Your task to perform on an android device: turn off notifications in google photos Image 0: 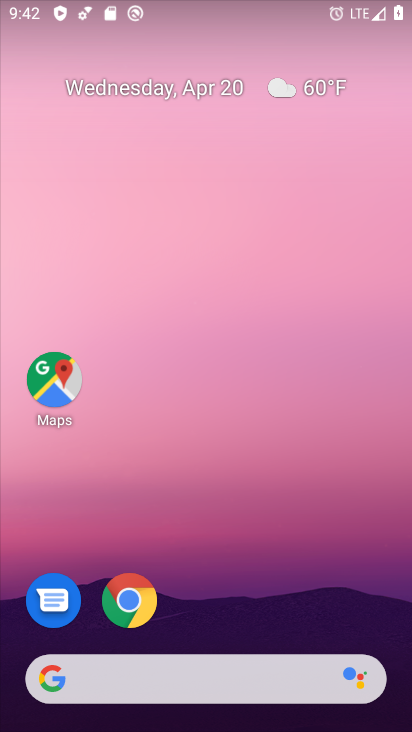
Step 0: drag from (247, 632) to (194, 76)
Your task to perform on an android device: turn off notifications in google photos Image 1: 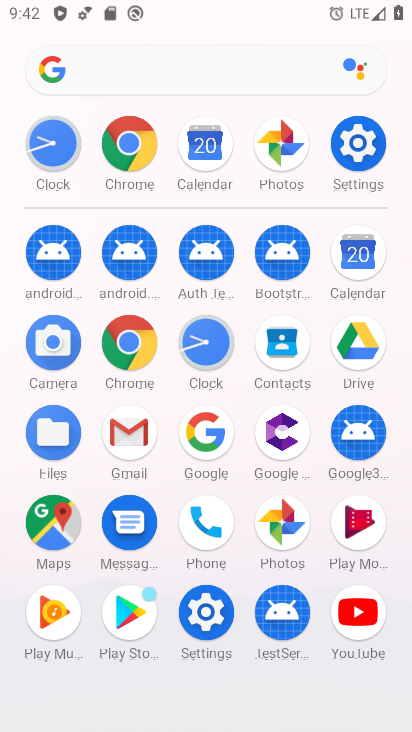
Step 1: click (281, 530)
Your task to perform on an android device: turn off notifications in google photos Image 2: 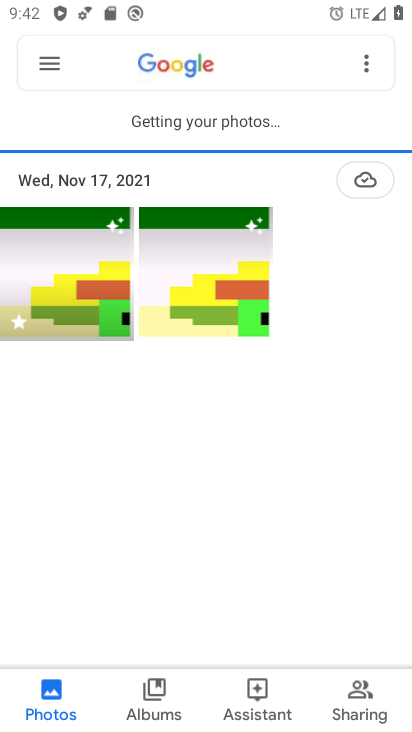
Step 2: click (56, 62)
Your task to perform on an android device: turn off notifications in google photos Image 3: 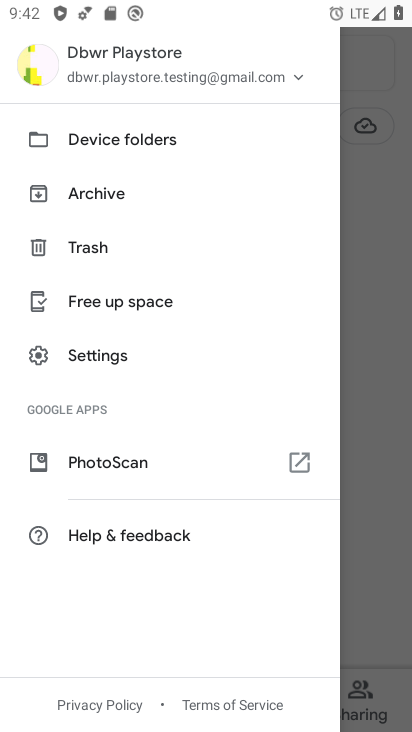
Step 3: click (47, 353)
Your task to perform on an android device: turn off notifications in google photos Image 4: 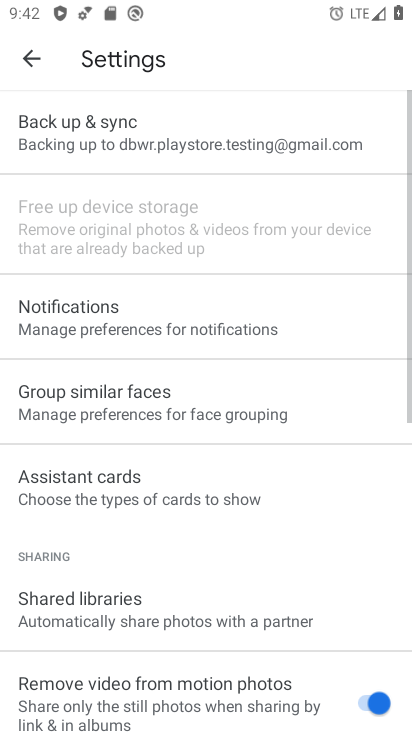
Step 4: click (100, 324)
Your task to perform on an android device: turn off notifications in google photos Image 5: 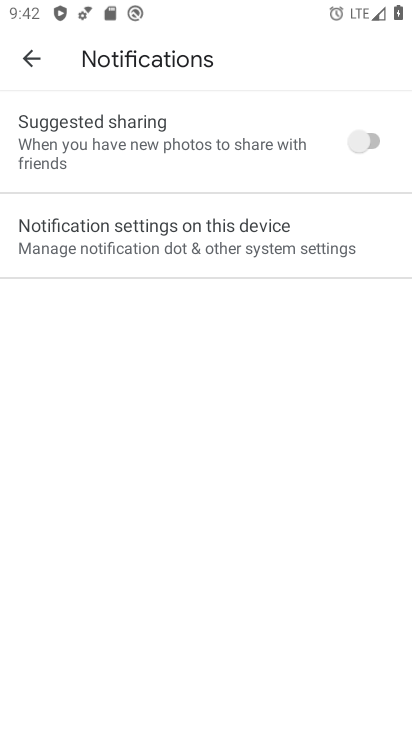
Step 5: click (310, 243)
Your task to perform on an android device: turn off notifications in google photos Image 6: 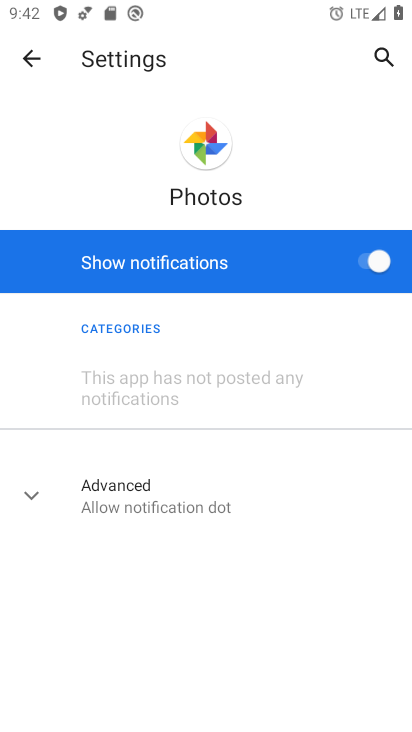
Step 6: click (378, 254)
Your task to perform on an android device: turn off notifications in google photos Image 7: 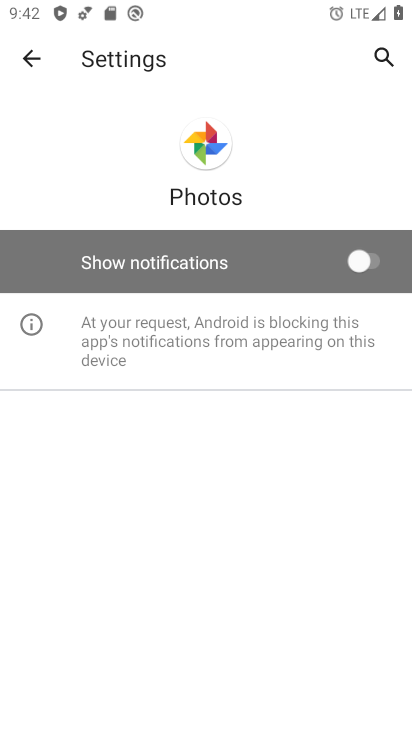
Step 7: task complete